Your task to perform on an android device: Do I have any events tomorrow? Image 0: 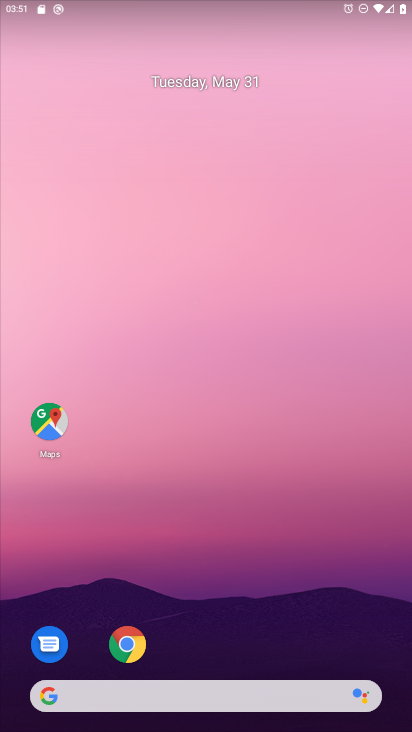
Step 0: drag from (296, 564) to (254, 166)
Your task to perform on an android device: Do I have any events tomorrow? Image 1: 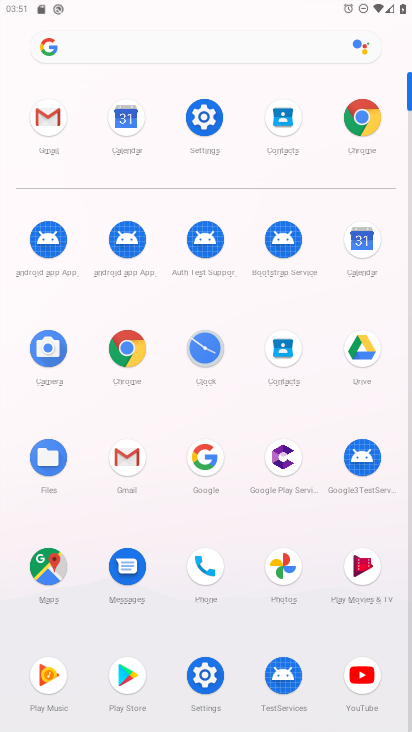
Step 1: click (371, 237)
Your task to perform on an android device: Do I have any events tomorrow? Image 2: 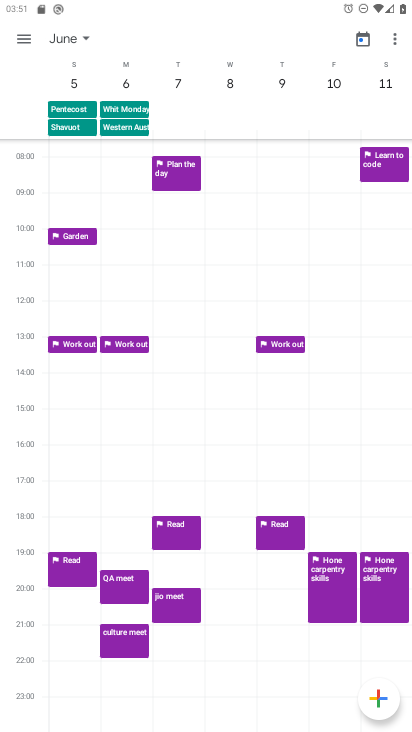
Step 2: click (65, 40)
Your task to perform on an android device: Do I have any events tomorrow? Image 3: 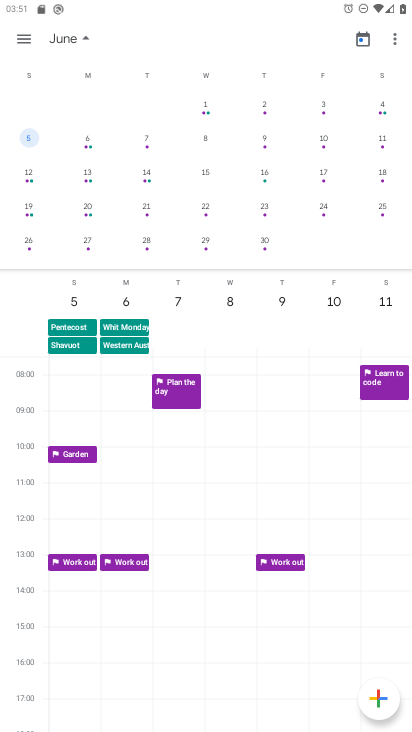
Step 3: drag from (92, 208) to (404, 68)
Your task to perform on an android device: Do I have any events tomorrow? Image 4: 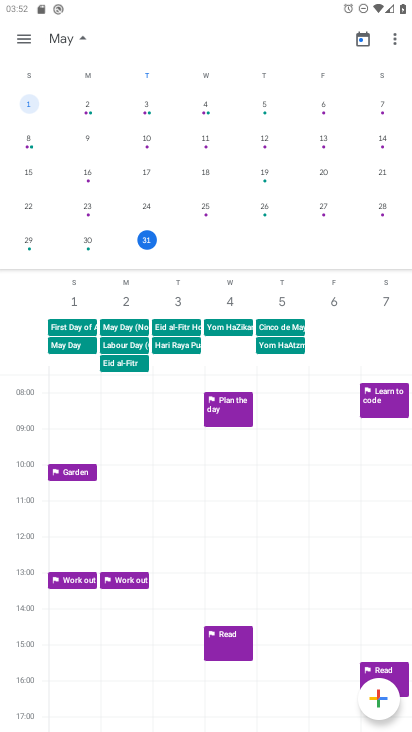
Step 4: drag from (81, 182) to (407, 209)
Your task to perform on an android device: Do I have any events tomorrow? Image 5: 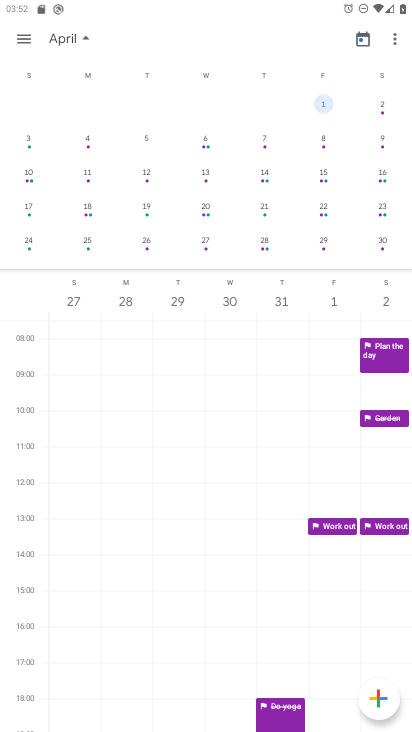
Step 5: drag from (376, 190) to (29, 179)
Your task to perform on an android device: Do I have any events tomorrow? Image 6: 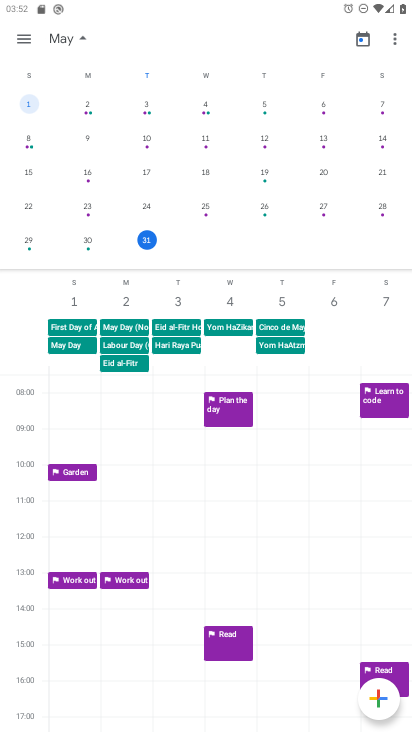
Step 6: click (147, 243)
Your task to perform on an android device: Do I have any events tomorrow? Image 7: 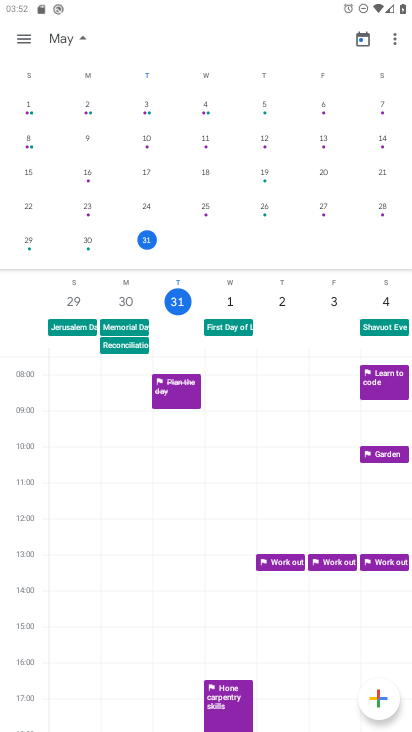
Step 7: click (236, 298)
Your task to perform on an android device: Do I have any events tomorrow? Image 8: 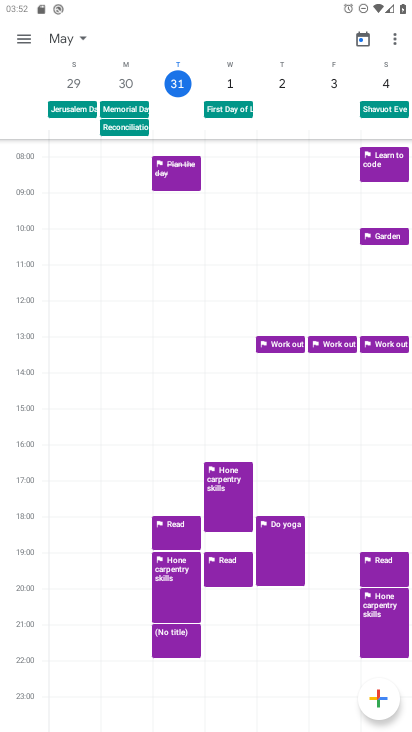
Step 8: click (27, 44)
Your task to perform on an android device: Do I have any events tomorrow? Image 9: 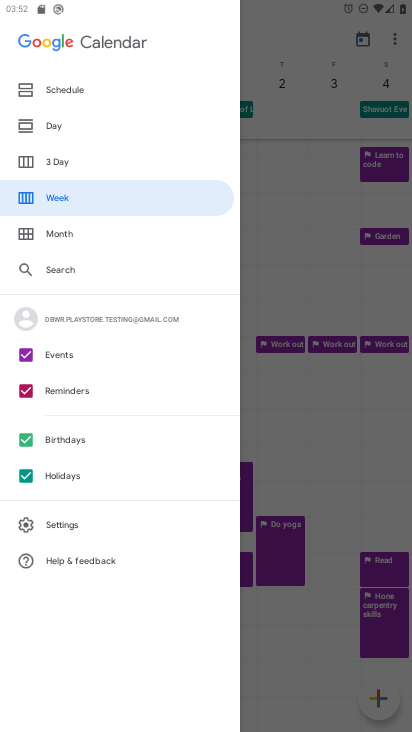
Step 9: click (66, 120)
Your task to perform on an android device: Do I have any events tomorrow? Image 10: 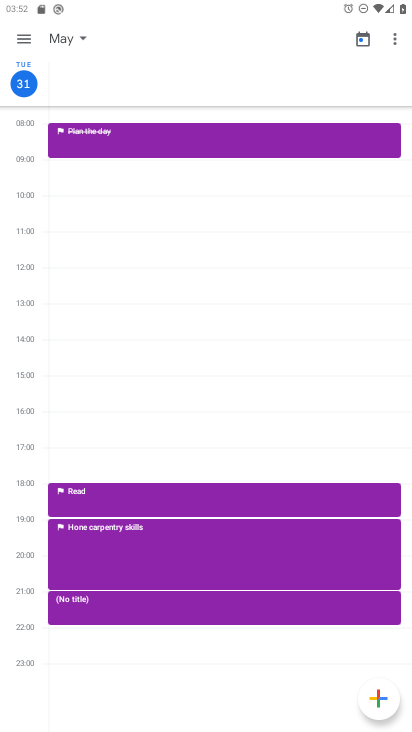
Step 10: task complete